Your task to perform on an android device: open a new tab in the chrome app Image 0: 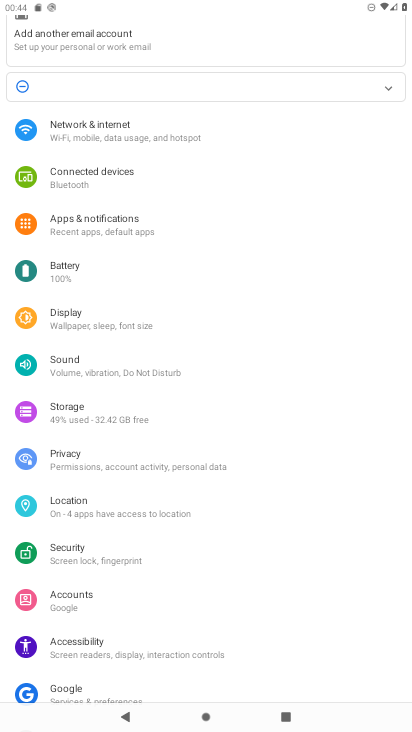
Step 0: press home button
Your task to perform on an android device: open a new tab in the chrome app Image 1: 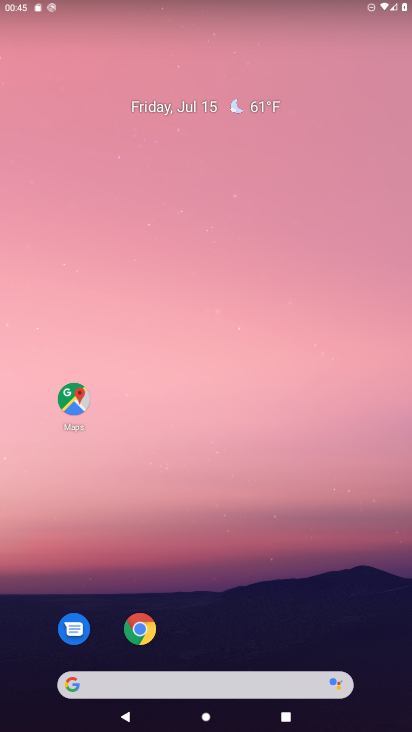
Step 1: click (142, 631)
Your task to perform on an android device: open a new tab in the chrome app Image 2: 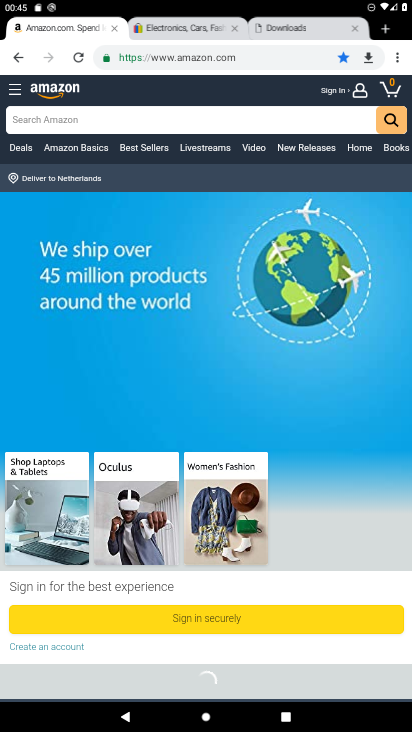
Step 2: click (384, 34)
Your task to perform on an android device: open a new tab in the chrome app Image 3: 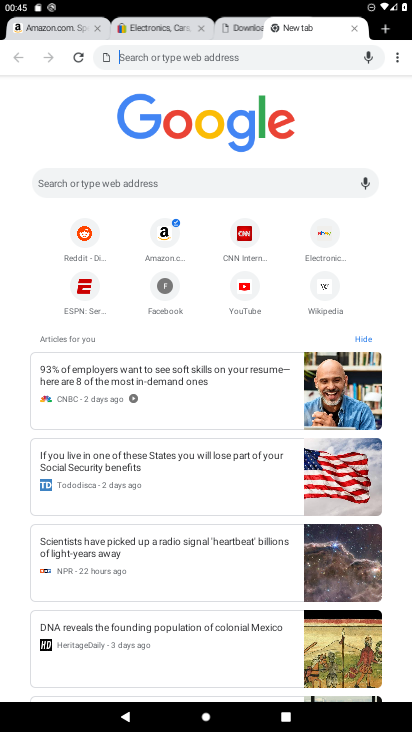
Step 3: task complete